Your task to perform on an android device: Open Wikipedia Image 0: 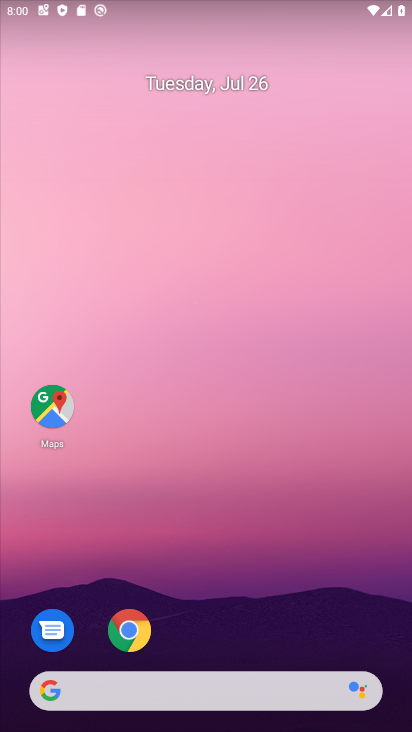
Step 0: drag from (290, 626) to (326, 0)
Your task to perform on an android device: Open Wikipedia Image 1: 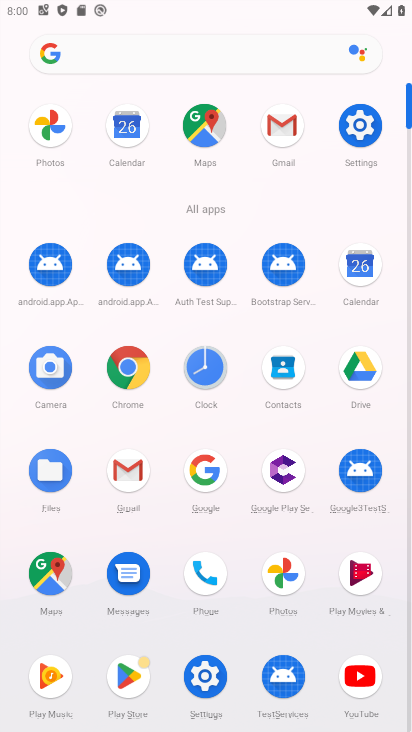
Step 1: click (353, 165)
Your task to perform on an android device: Open Wikipedia Image 2: 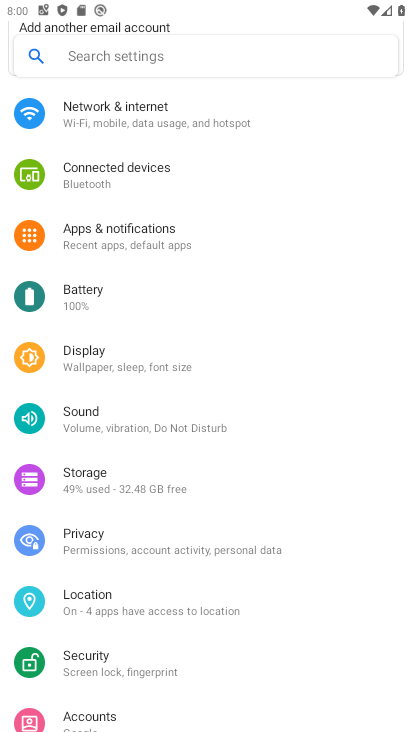
Step 2: press back button
Your task to perform on an android device: Open Wikipedia Image 3: 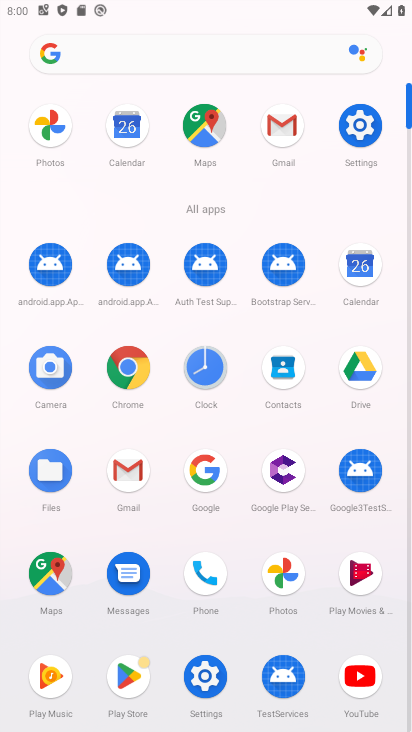
Step 3: click (130, 356)
Your task to perform on an android device: Open Wikipedia Image 4: 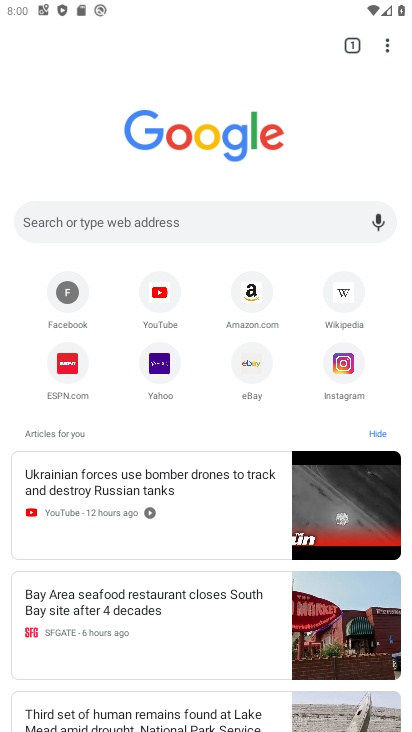
Step 4: click (354, 295)
Your task to perform on an android device: Open Wikipedia Image 5: 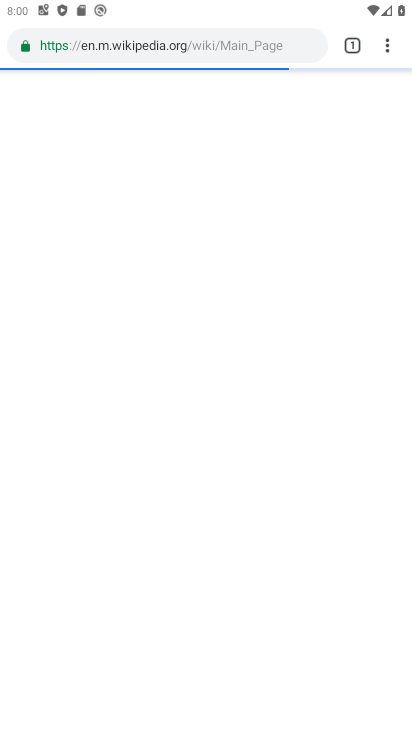
Step 5: task complete